Your task to perform on an android device: Open calendar and show me the first week of next month Image 0: 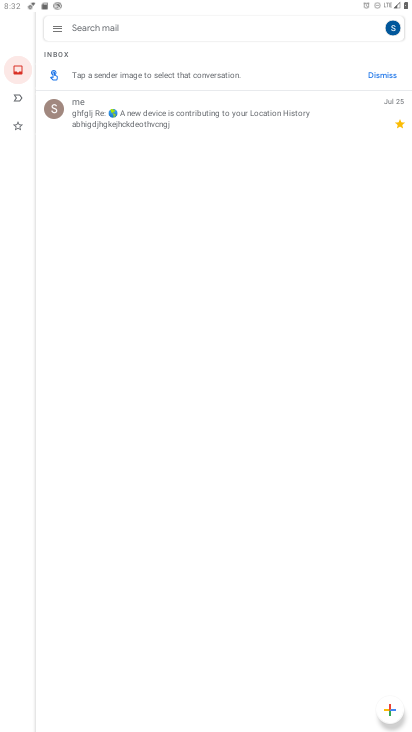
Step 0: press home button
Your task to perform on an android device: Open calendar and show me the first week of next month Image 1: 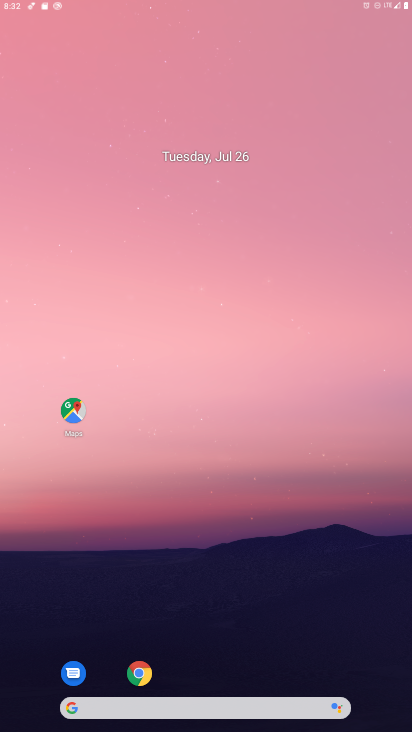
Step 1: drag from (357, 646) to (155, 33)
Your task to perform on an android device: Open calendar and show me the first week of next month Image 2: 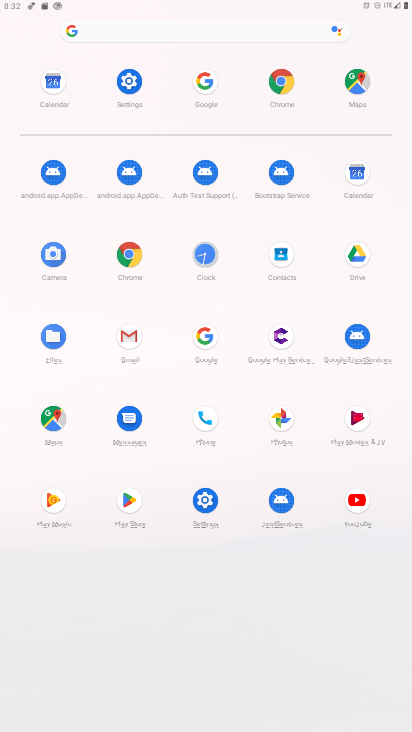
Step 2: click (366, 176)
Your task to perform on an android device: Open calendar and show me the first week of next month Image 3: 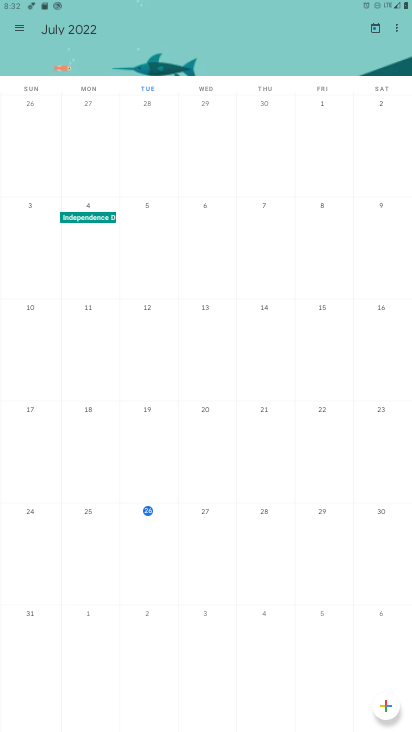
Step 3: drag from (349, 245) to (2, 322)
Your task to perform on an android device: Open calendar and show me the first week of next month Image 4: 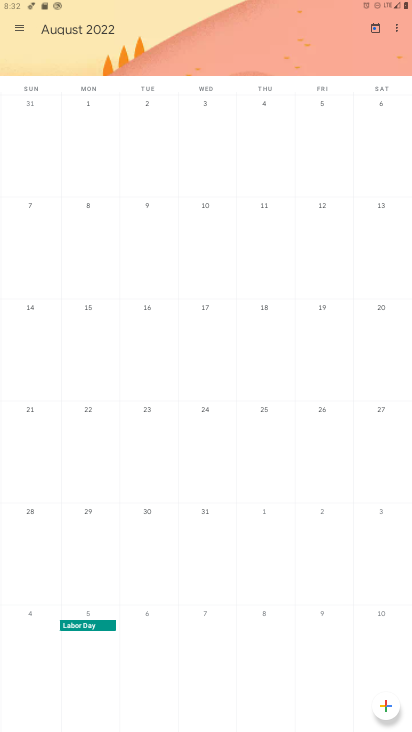
Step 4: click (33, 111)
Your task to perform on an android device: Open calendar and show me the first week of next month Image 5: 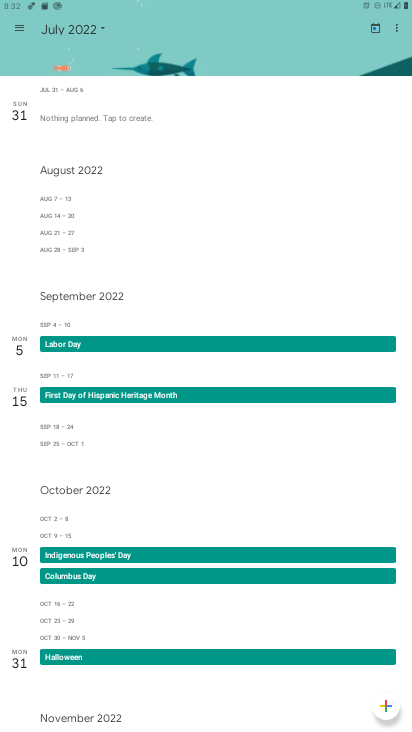
Step 5: task complete